Your task to perform on an android device: Search for vegetarian restaurants on Maps Image 0: 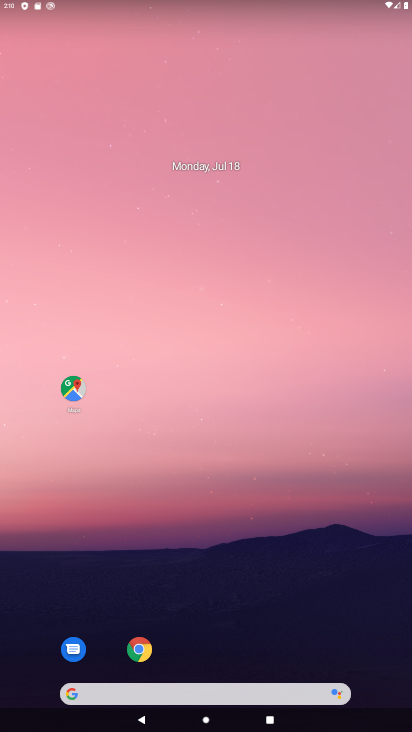
Step 0: click (68, 380)
Your task to perform on an android device: Search for vegetarian restaurants on Maps Image 1: 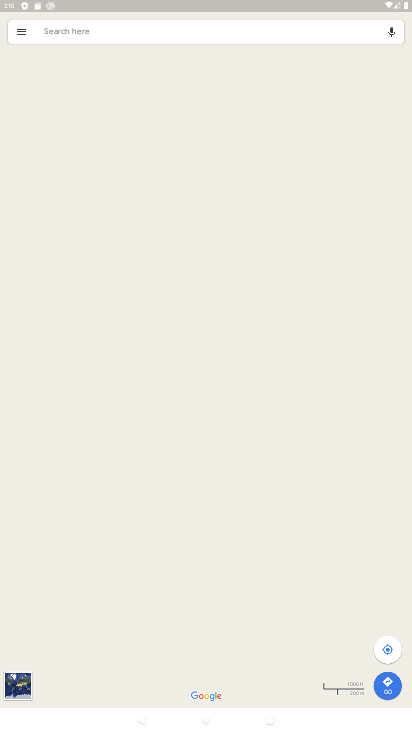
Step 1: click (141, 31)
Your task to perform on an android device: Search for vegetarian restaurants on Maps Image 2: 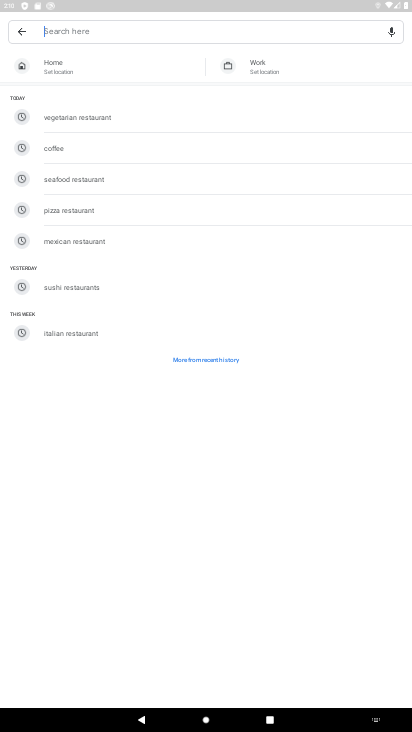
Step 2: type "vegetarian restaurants"
Your task to perform on an android device: Search for vegetarian restaurants on Maps Image 3: 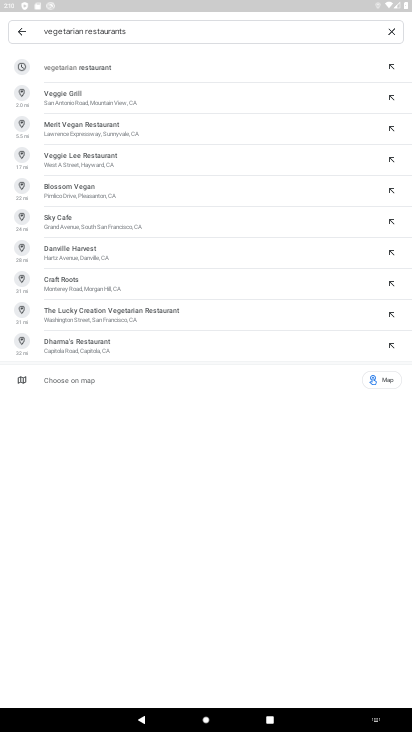
Step 3: click (90, 70)
Your task to perform on an android device: Search for vegetarian restaurants on Maps Image 4: 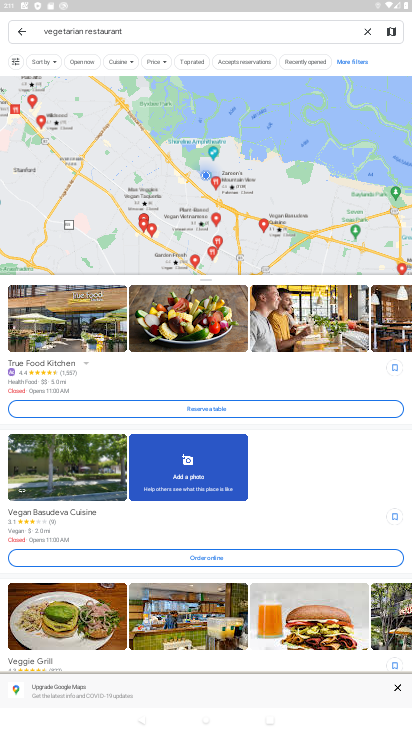
Step 4: task complete